Your task to perform on an android device: turn on wifi Image 0: 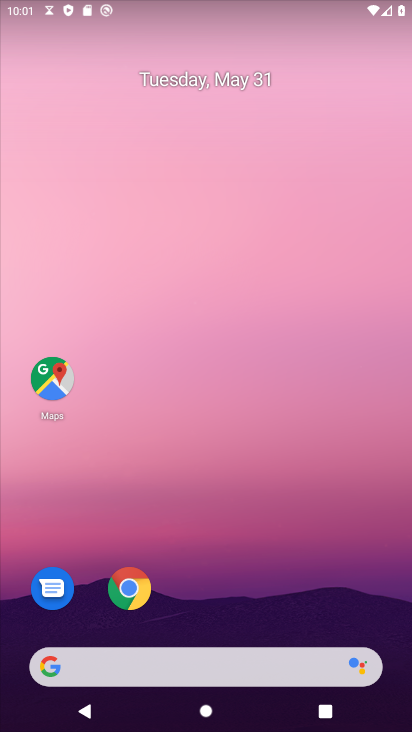
Step 0: drag from (293, 606) to (261, 140)
Your task to perform on an android device: turn on wifi Image 1: 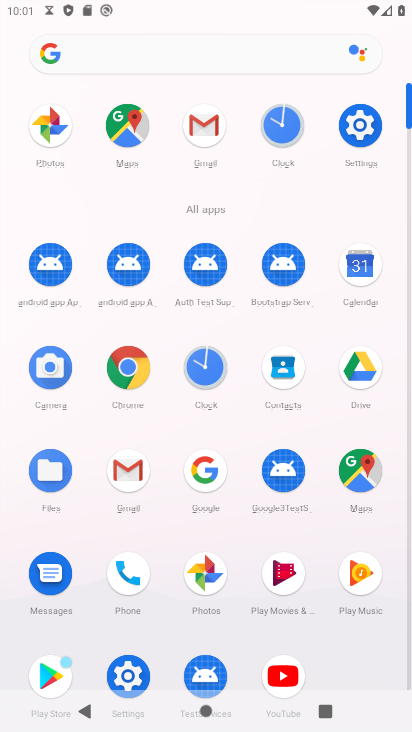
Step 1: click (361, 122)
Your task to perform on an android device: turn on wifi Image 2: 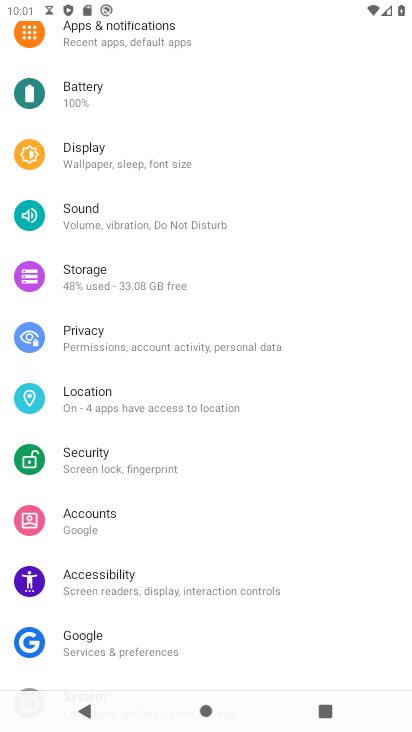
Step 2: drag from (111, 178) to (86, 260)
Your task to perform on an android device: turn on wifi Image 3: 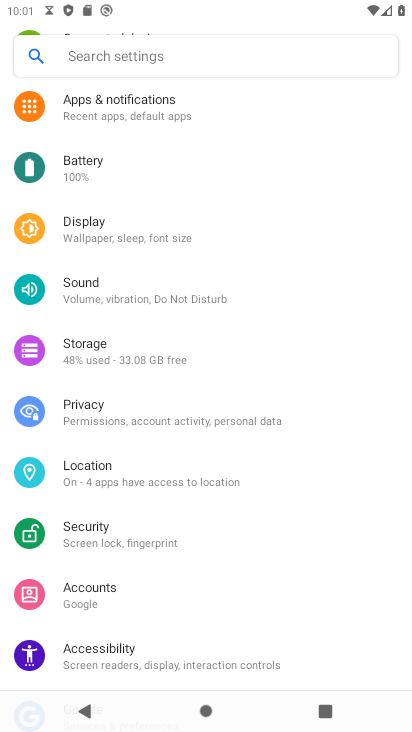
Step 3: drag from (155, 151) to (137, 266)
Your task to perform on an android device: turn on wifi Image 4: 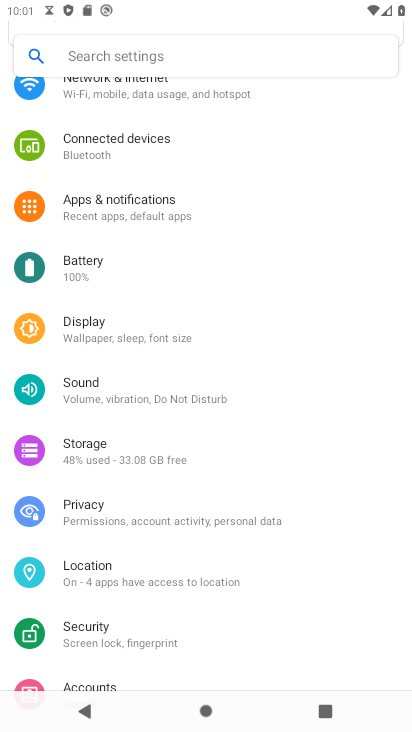
Step 4: drag from (125, 146) to (141, 250)
Your task to perform on an android device: turn on wifi Image 5: 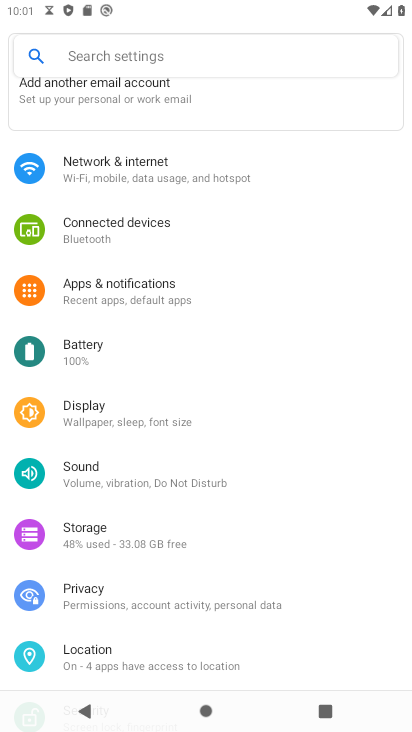
Step 5: click (115, 174)
Your task to perform on an android device: turn on wifi Image 6: 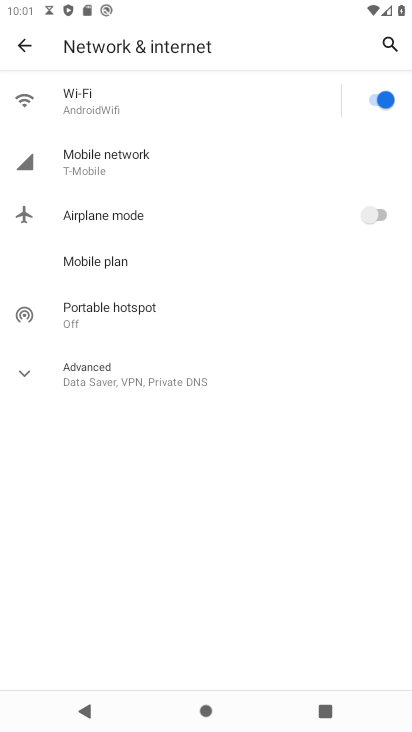
Step 6: task complete